Your task to perform on an android device: turn off sleep mode Image 0: 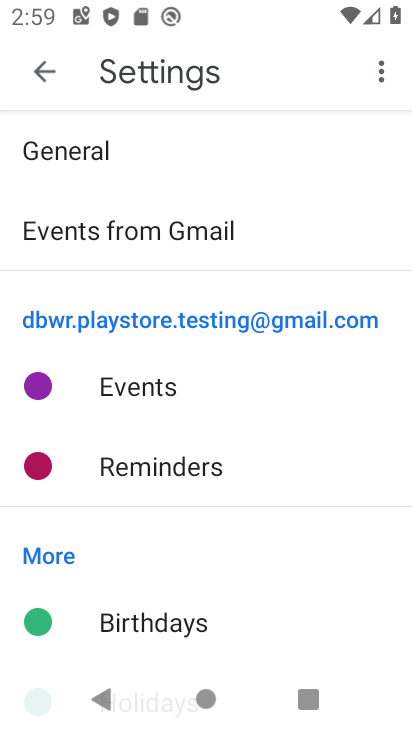
Step 0: press home button
Your task to perform on an android device: turn off sleep mode Image 1: 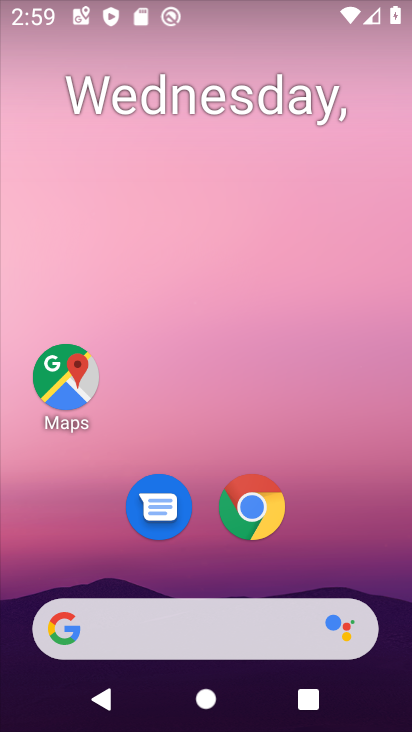
Step 1: drag from (349, 537) to (361, 0)
Your task to perform on an android device: turn off sleep mode Image 2: 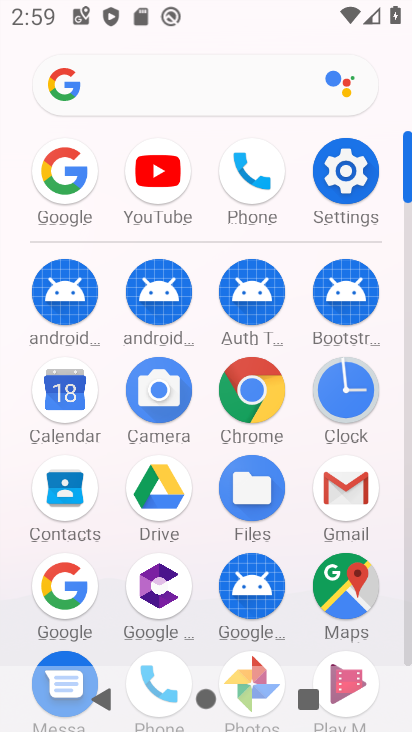
Step 2: click (341, 187)
Your task to perform on an android device: turn off sleep mode Image 3: 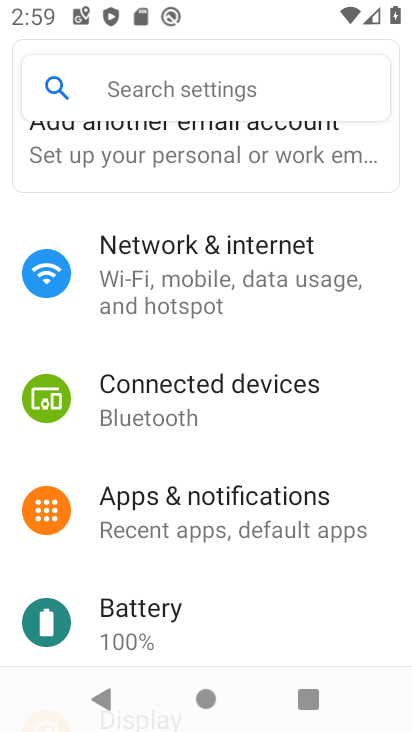
Step 3: drag from (240, 579) to (242, 311)
Your task to perform on an android device: turn off sleep mode Image 4: 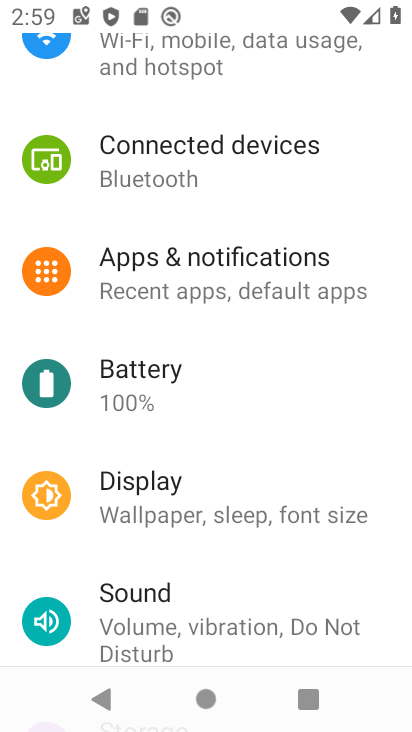
Step 4: click (154, 508)
Your task to perform on an android device: turn off sleep mode Image 5: 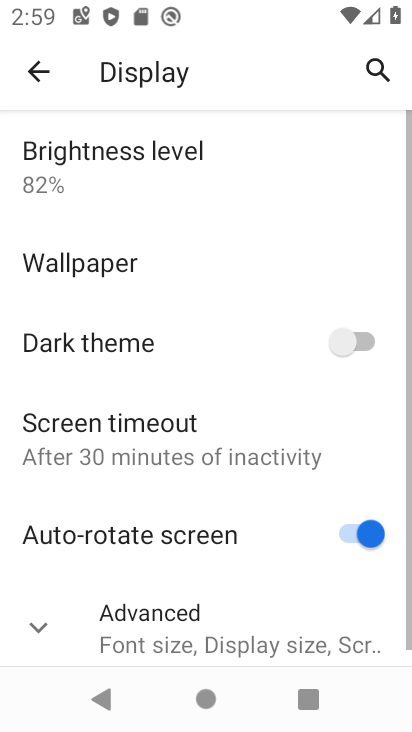
Step 5: drag from (196, 572) to (193, 279)
Your task to perform on an android device: turn off sleep mode Image 6: 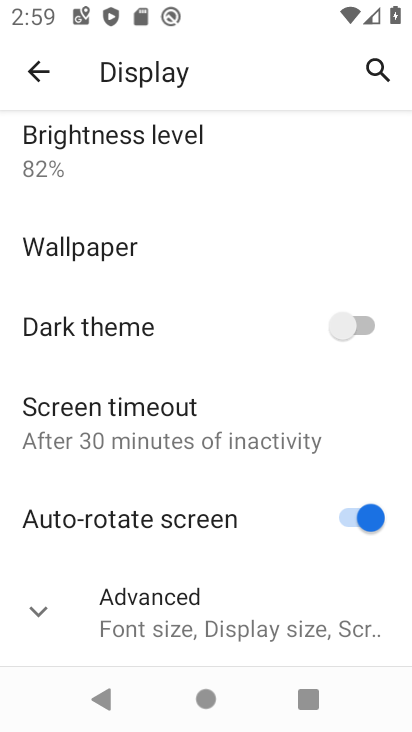
Step 6: click (226, 605)
Your task to perform on an android device: turn off sleep mode Image 7: 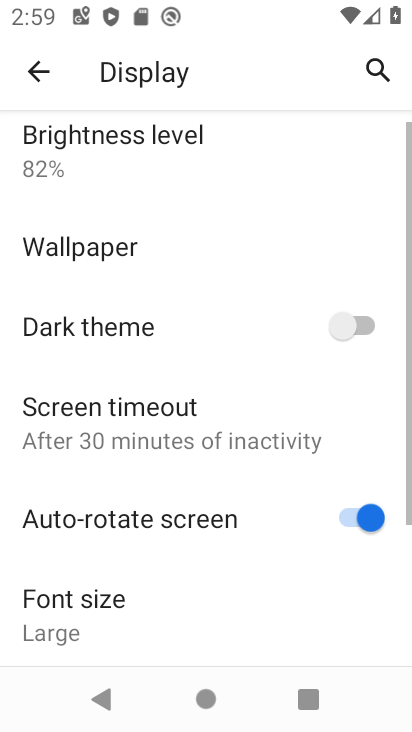
Step 7: drag from (222, 576) to (214, 205)
Your task to perform on an android device: turn off sleep mode Image 8: 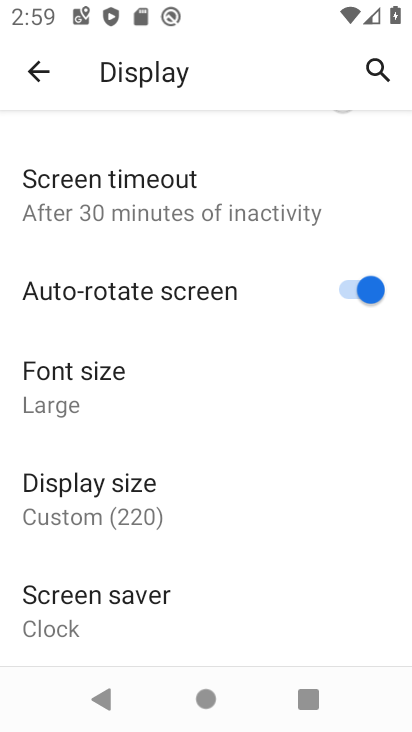
Step 8: press back button
Your task to perform on an android device: turn off sleep mode Image 9: 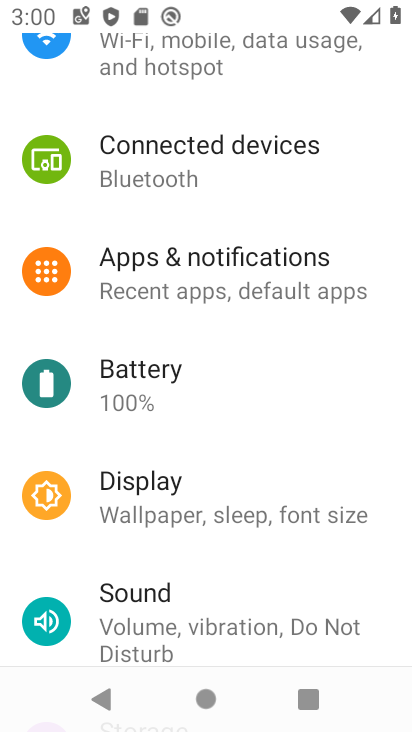
Step 9: drag from (336, 461) to (288, 147)
Your task to perform on an android device: turn off sleep mode Image 10: 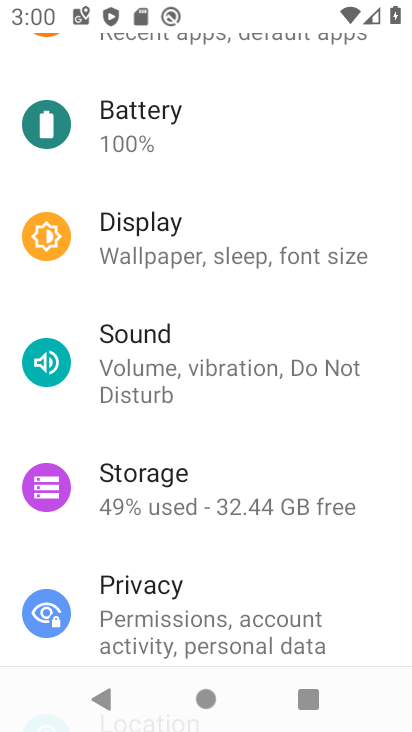
Step 10: drag from (205, 489) to (198, 341)
Your task to perform on an android device: turn off sleep mode Image 11: 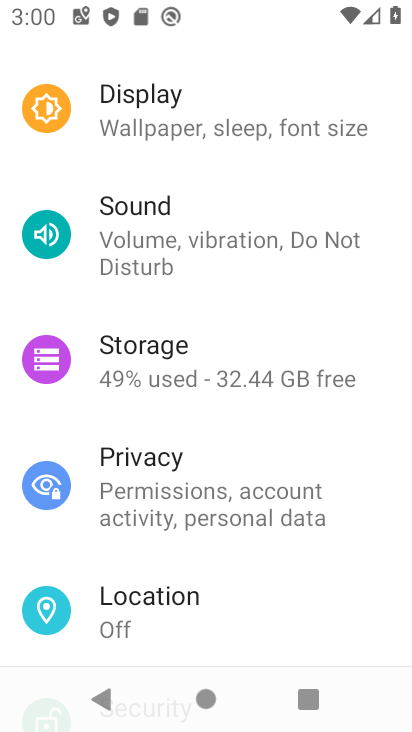
Step 11: click (190, 252)
Your task to perform on an android device: turn off sleep mode Image 12: 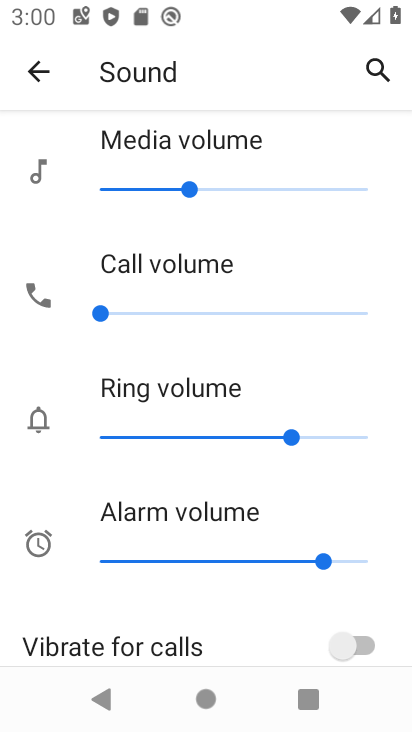
Step 12: drag from (230, 539) to (252, 328)
Your task to perform on an android device: turn off sleep mode Image 13: 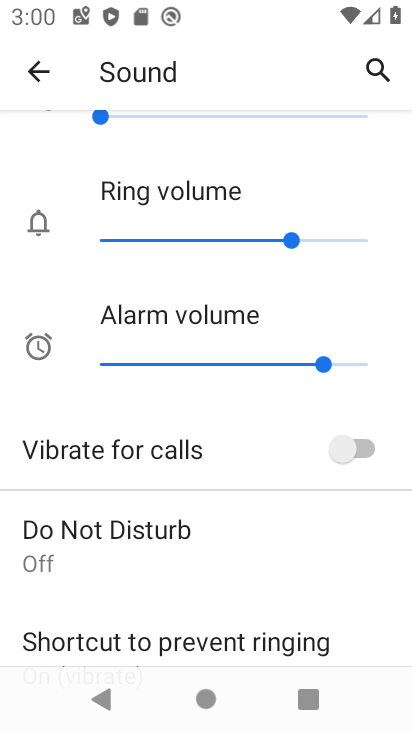
Step 13: drag from (217, 559) to (251, 285)
Your task to perform on an android device: turn off sleep mode Image 14: 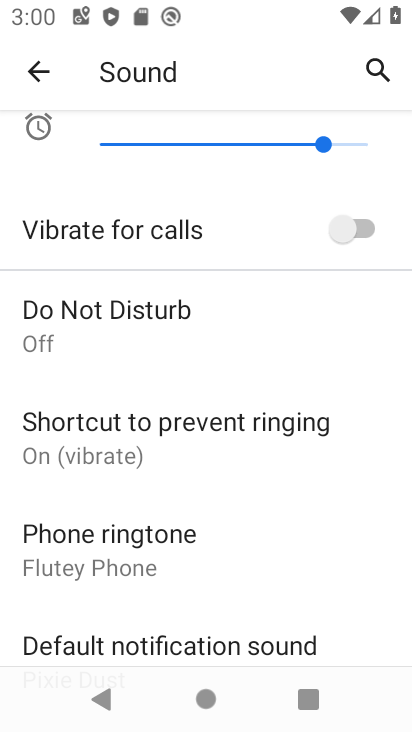
Step 14: drag from (238, 540) to (246, 120)
Your task to perform on an android device: turn off sleep mode Image 15: 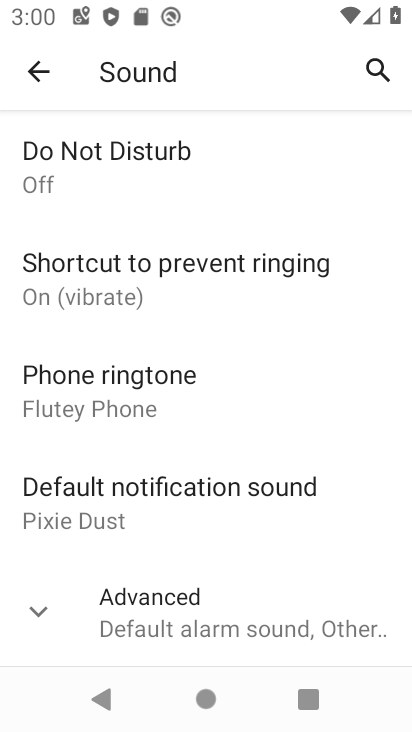
Step 15: click (225, 603)
Your task to perform on an android device: turn off sleep mode Image 16: 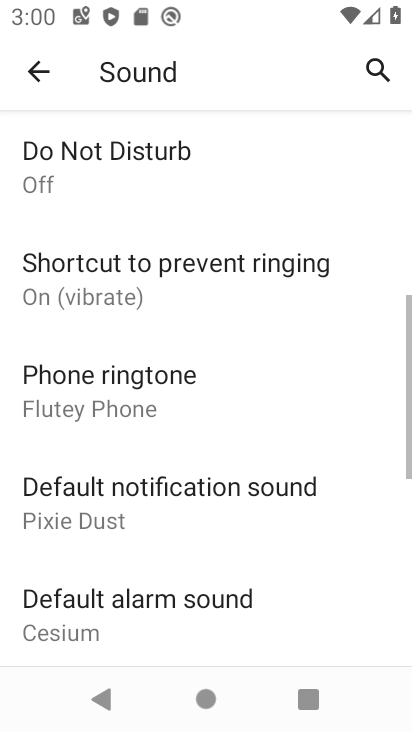
Step 16: task complete